Your task to perform on an android device: Open Google Chrome and click the shortcut for Amazon.com Image 0: 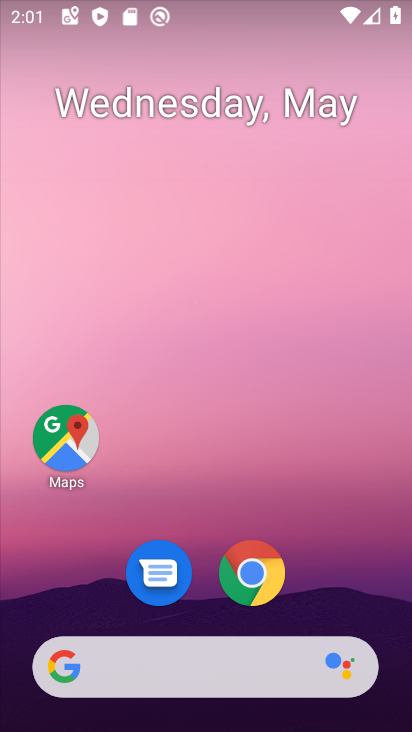
Step 0: click (252, 564)
Your task to perform on an android device: Open Google Chrome and click the shortcut for Amazon.com Image 1: 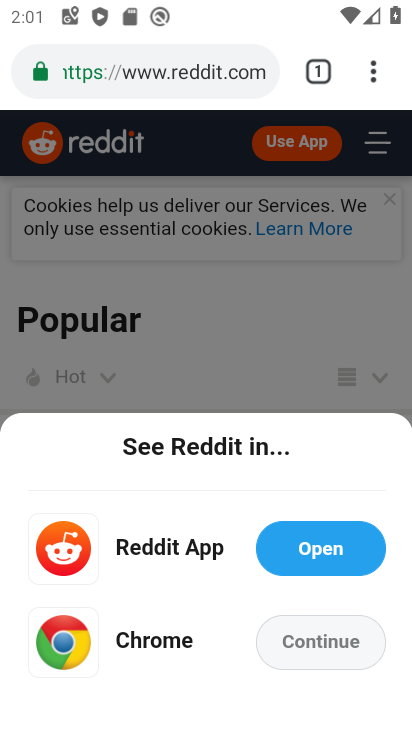
Step 1: click (376, 71)
Your task to perform on an android device: Open Google Chrome and click the shortcut for Amazon.com Image 2: 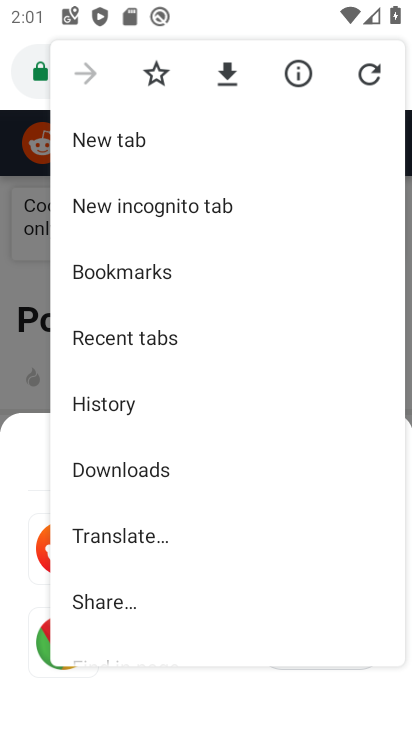
Step 2: click (153, 146)
Your task to perform on an android device: Open Google Chrome and click the shortcut for Amazon.com Image 3: 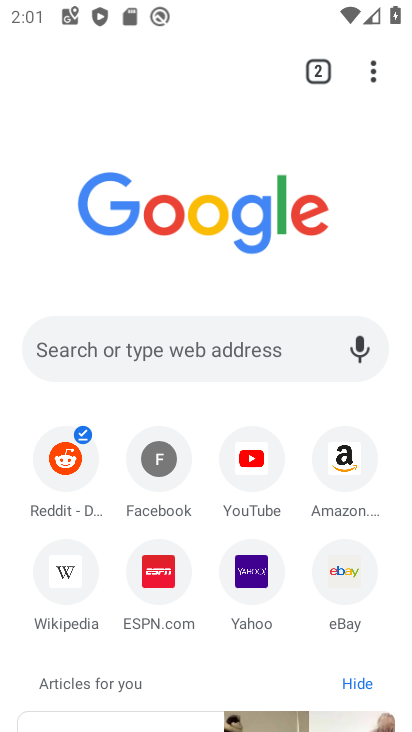
Step 3: click (358, 458)
Your task to perform on an android device: Open Google Chrome and click the shortcut for Amazon.com Image 4: 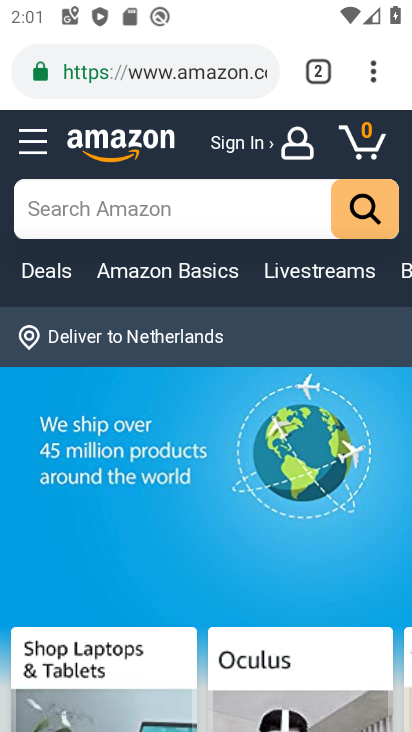
Step 4: task complete